Your task to perform on an android device: turn off airplane mode Image 0: 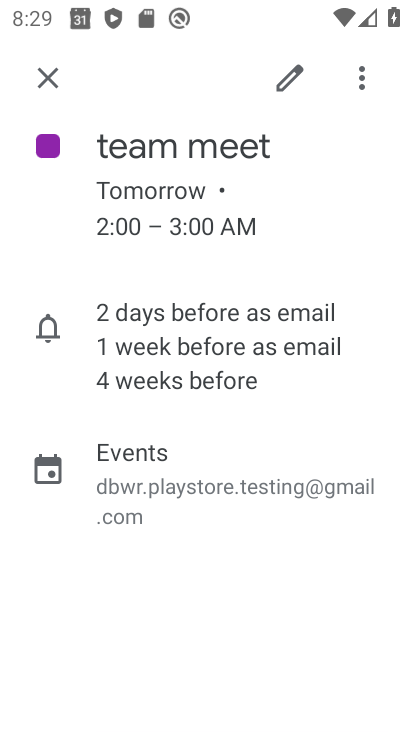
Step 0: press back button
Your task to perform on an android device: turn off airplane mode Image 1: 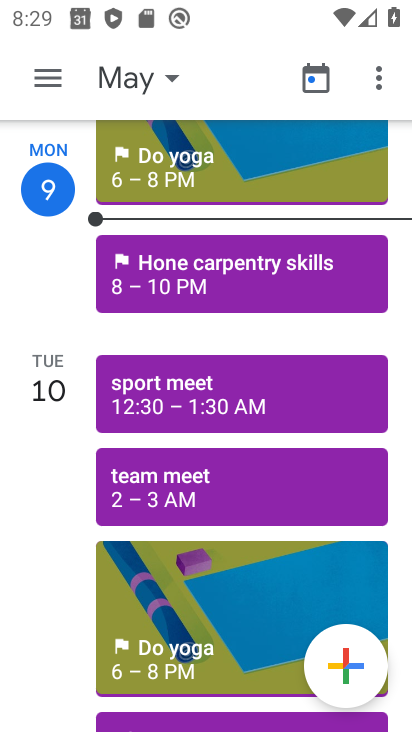
Step 1: press back button
Your task to perform on an android device: turn off airplane mode Image 2: 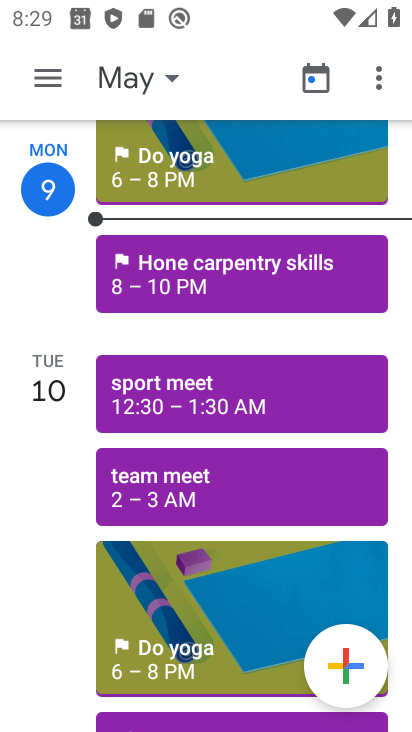
Step 2: press back button
Your task to perform on an android device: turn off airplane mode Image 3: 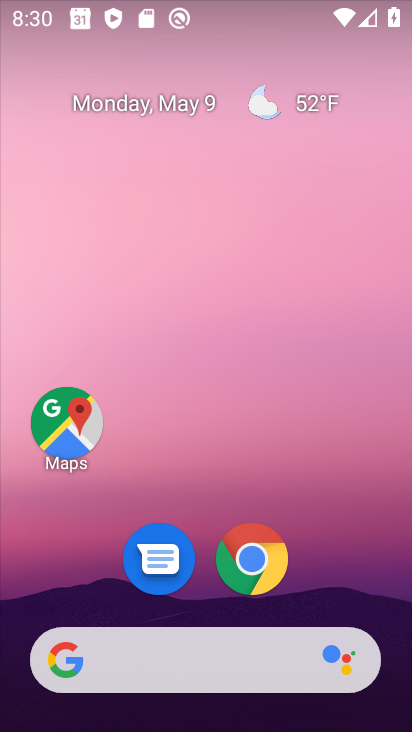
Step 3: drag from (123, 23) to (175, 545)
Your task to perform on an android device: turn off airplane mode Image 4: 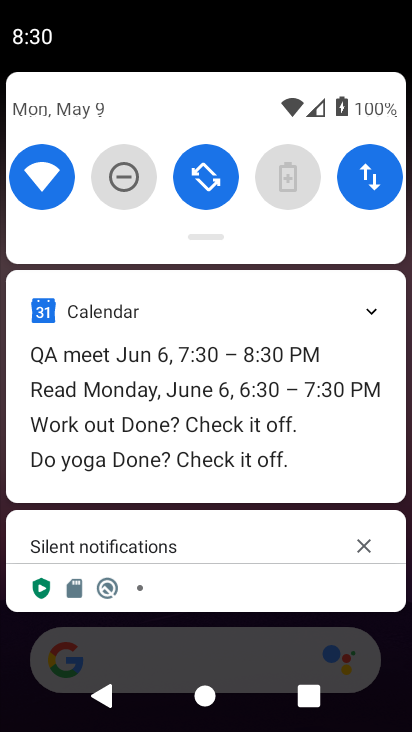
Step 4: drag from (213, 222) to (212, 618)
Your task to perform on an android device: turn off airplane mode Image 5: 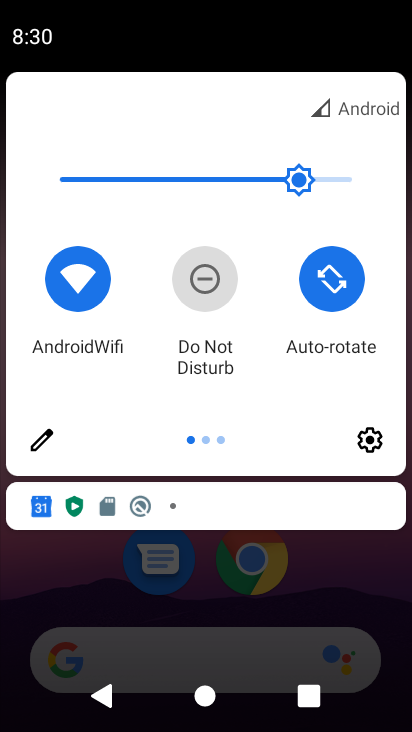
Step 5: drag from (376, 287) to (18, 280)
Your task to perform on an android device: turn off airplane mode Image 6: 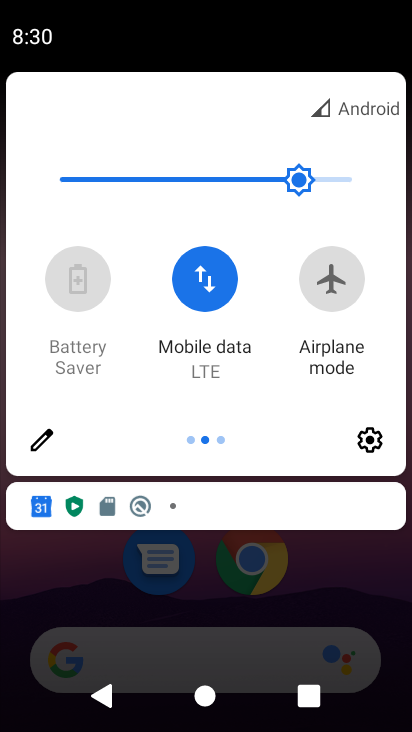
Step 6: click (328, 276)
Your task to perform on an android device: turn off airplane mode Image 7: 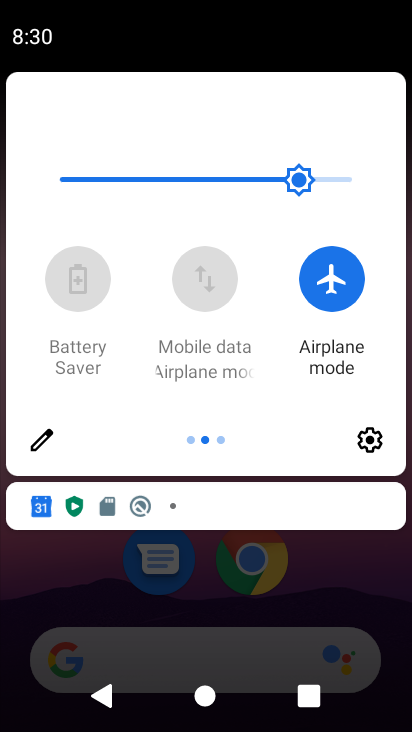
Step 7: click (310, 300)
Your task to perform on an android device: turn off airplane mode Image 8: 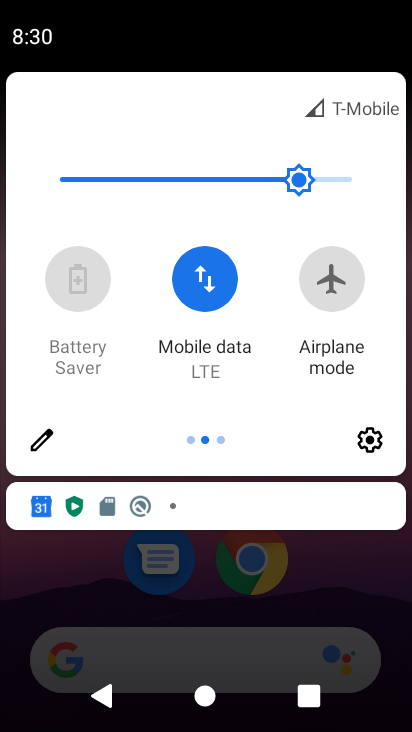
Step 8: task complete